Your task to perform on an android device: Go to eBay Image 0: 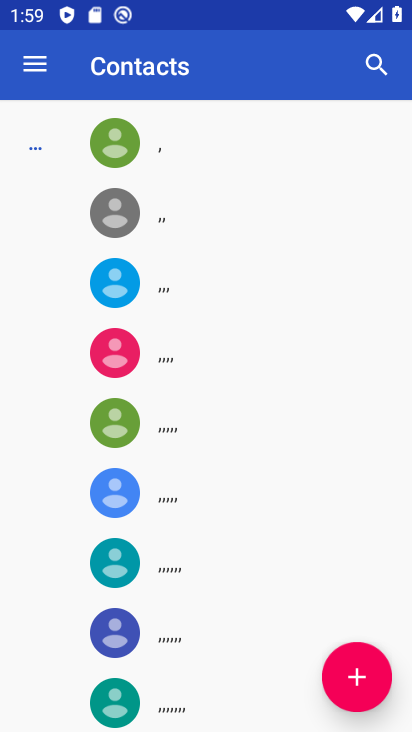
Step 0: press home button
Your task to perform on an android device: Go to eBay Image 1: 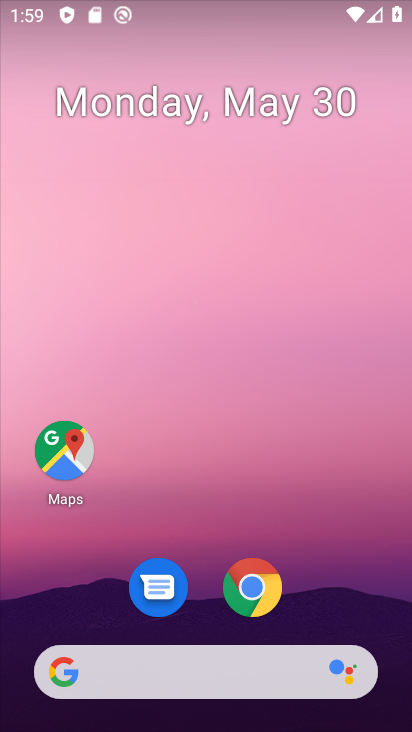
Step 1: click (243, 589)
Your task to perform on an android device: Go to eBay Image 2: 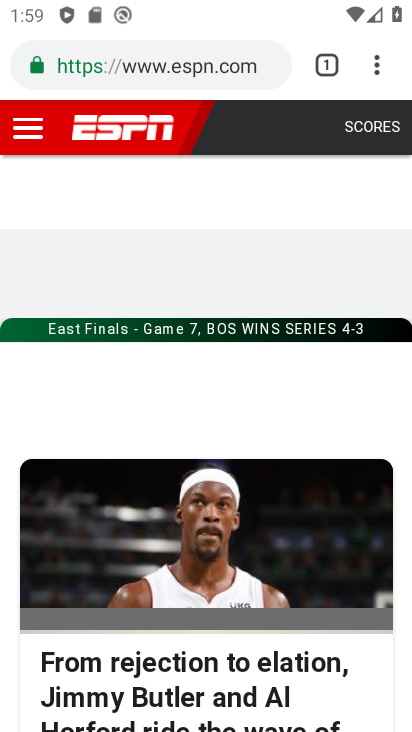
Step 2: press home button
Your task to perform on an android device: Go to eBay Image 3: 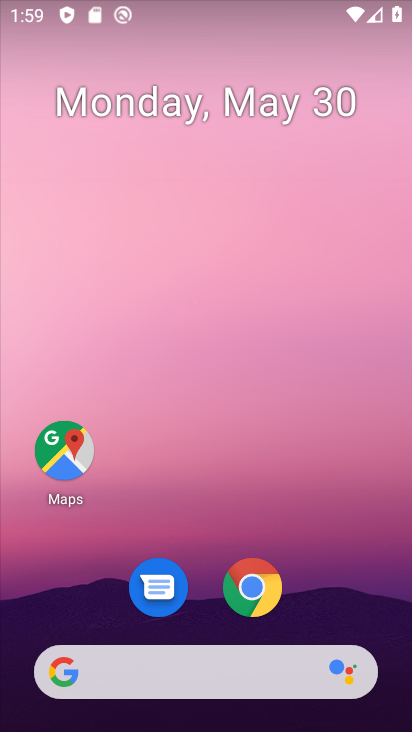
Step 3: click (258, 602)
Your task to perform on an android device: Go to eBay Image 4: 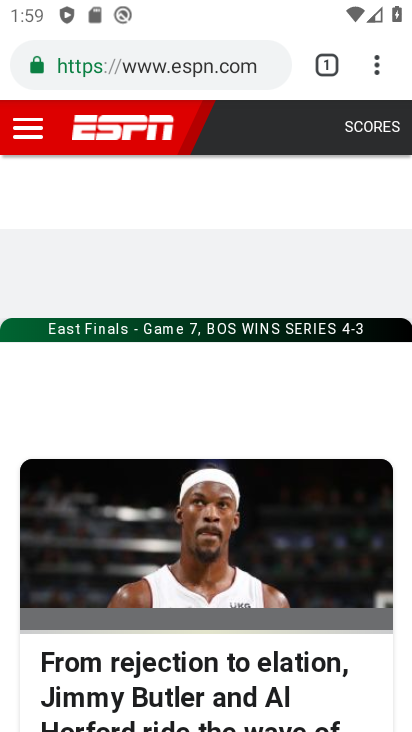
Step 4: click (332, 68)
Your task to perform on an android device: Go to eBay Image 5: 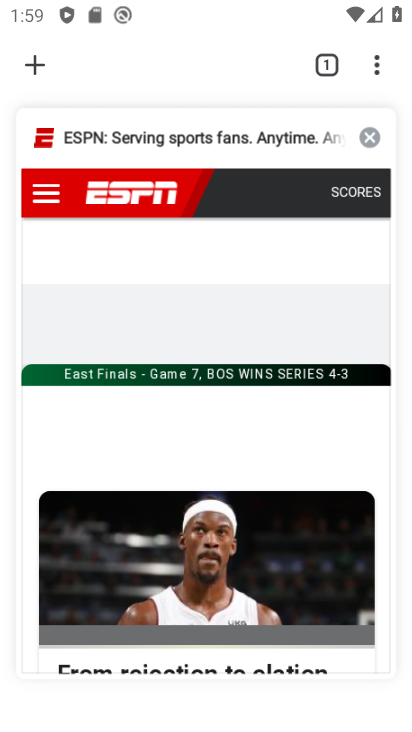
Step 5: click (376, 145)
Your task to perform on an android device: Go to eBay Image 6: 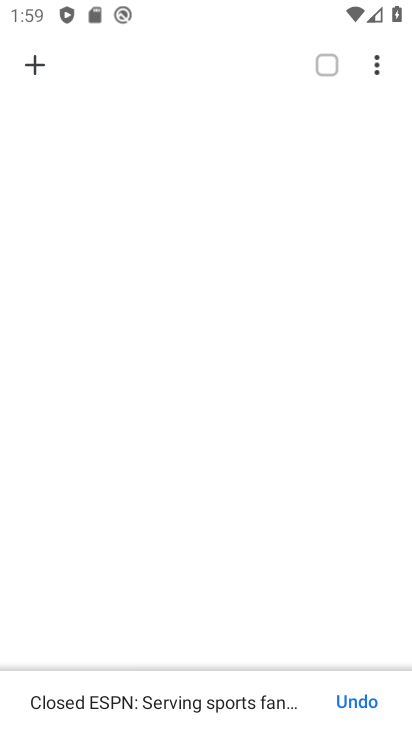
Step 6: click (36, 66)
Your task to perform on an android device: Go to eBay Image 7: 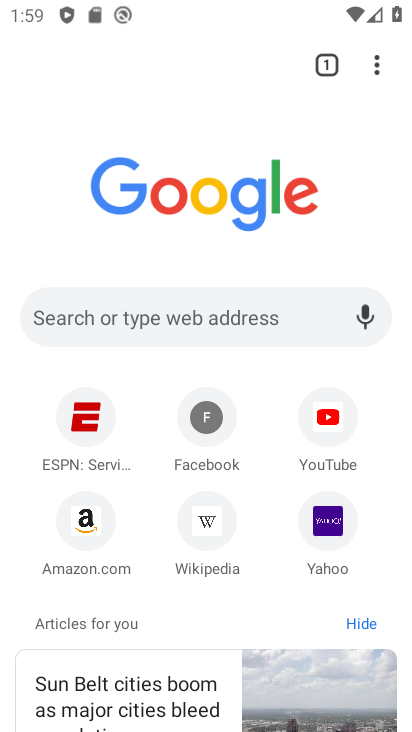
Step 7: click (191, 315)
Your task to perform on an android device: Go to eBay Image 8: 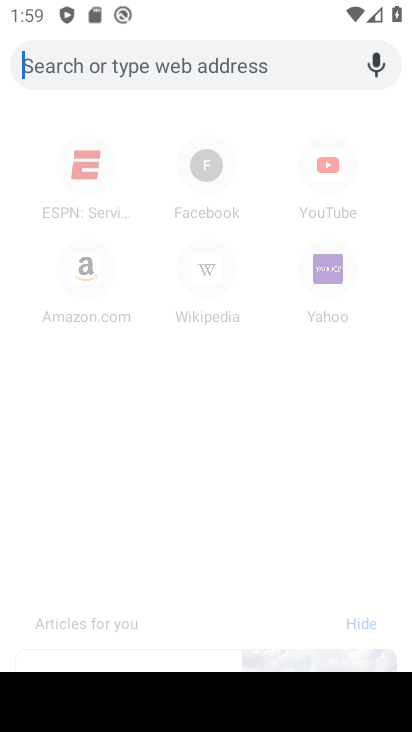
Step 8: type "ebay.com"
Your task to perform on an android device: Go to eBay Image 9: 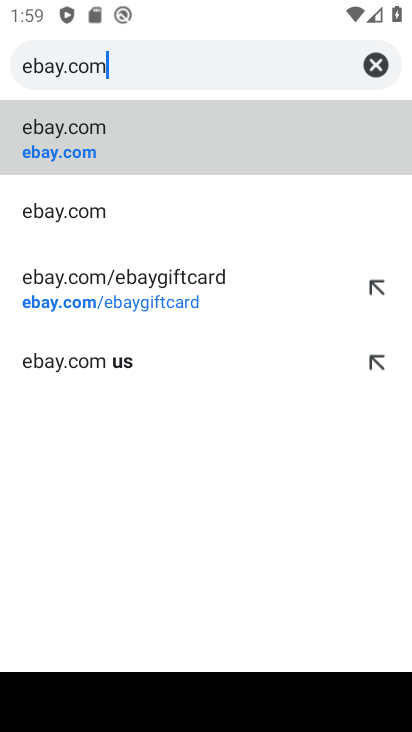
Step 9: click (171, 137)
Your task to perform on an android device: Go to eBay Image 10: 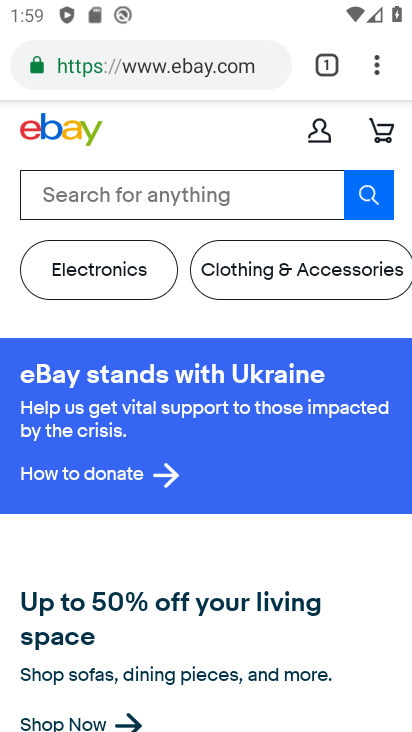
Step 10: task complete